Your task to perform on an android device: Open Wikipedia Image 0: 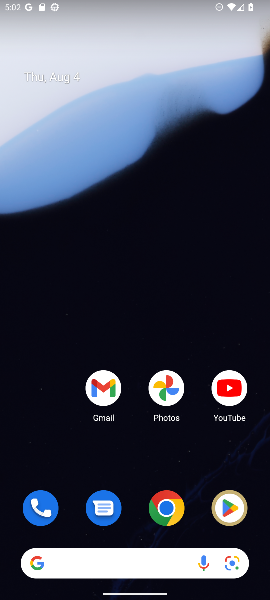
Step 0: drag from (146, 457) to (145, 182)
Your task to perform on an android device: Open Wikipedia Image 1: 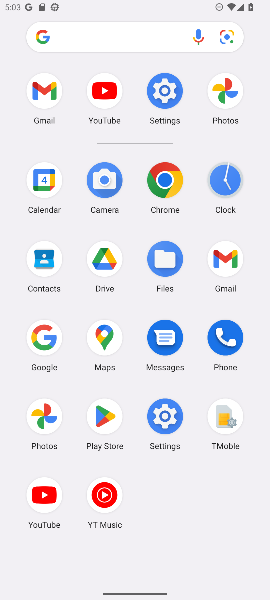
Step 1: click (164, 181)
Your task to perform on an android device: Open Wikipedia Image 2: 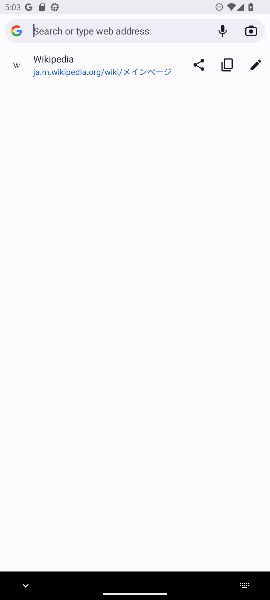
Step 2: click (64, 71)
Your task to perform on an android device: Open Wikipedia Image 3: 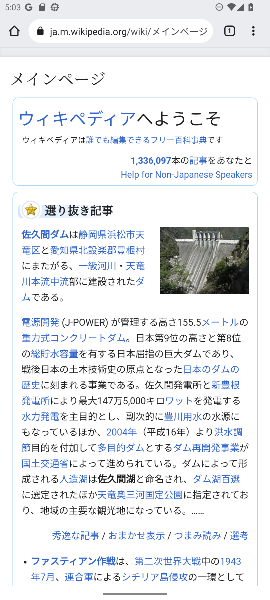
Step 3: task complete